Your task to perform on an android device: Open ESPN.com Image 0: 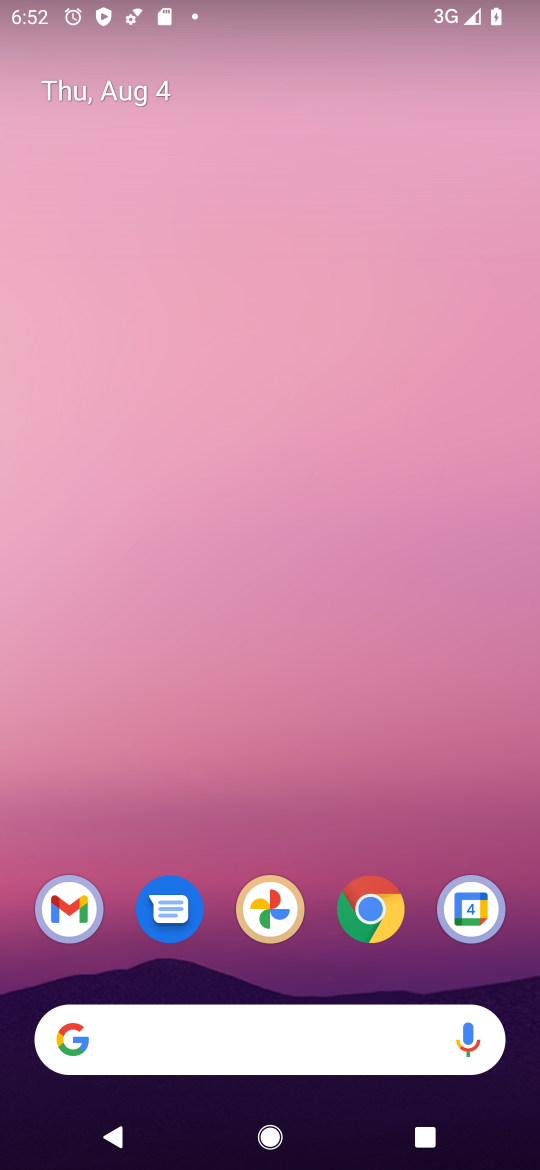
Step 0: drag from (47, 620) to (1, 220)
Your task to perform on an android device: Open ESPN.com Image 1: 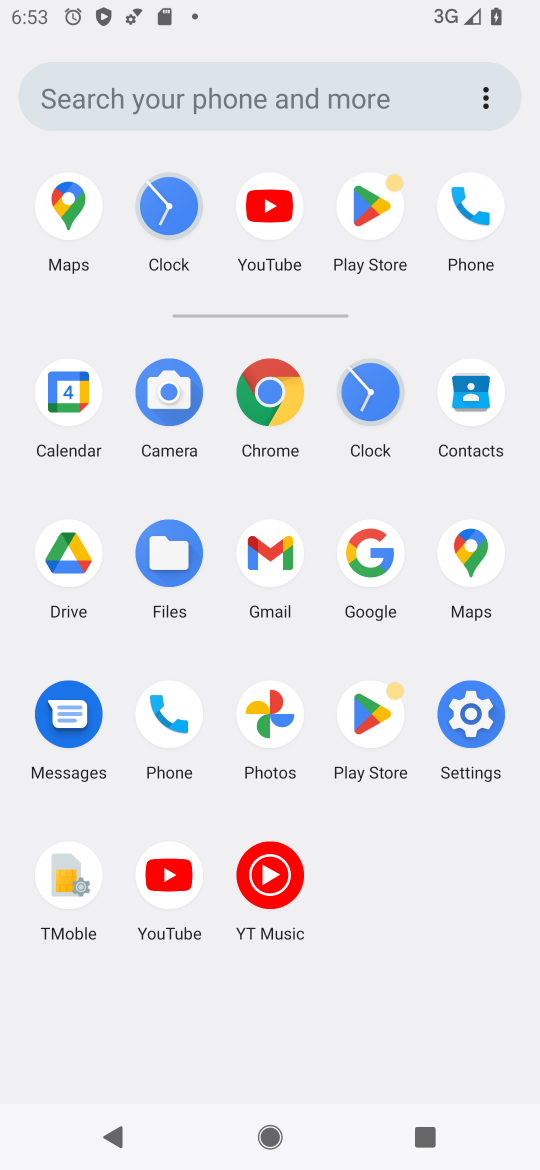
Step 1: click (284, 384)
Your task to perform on an android device: Open ESPN.com Image 2: 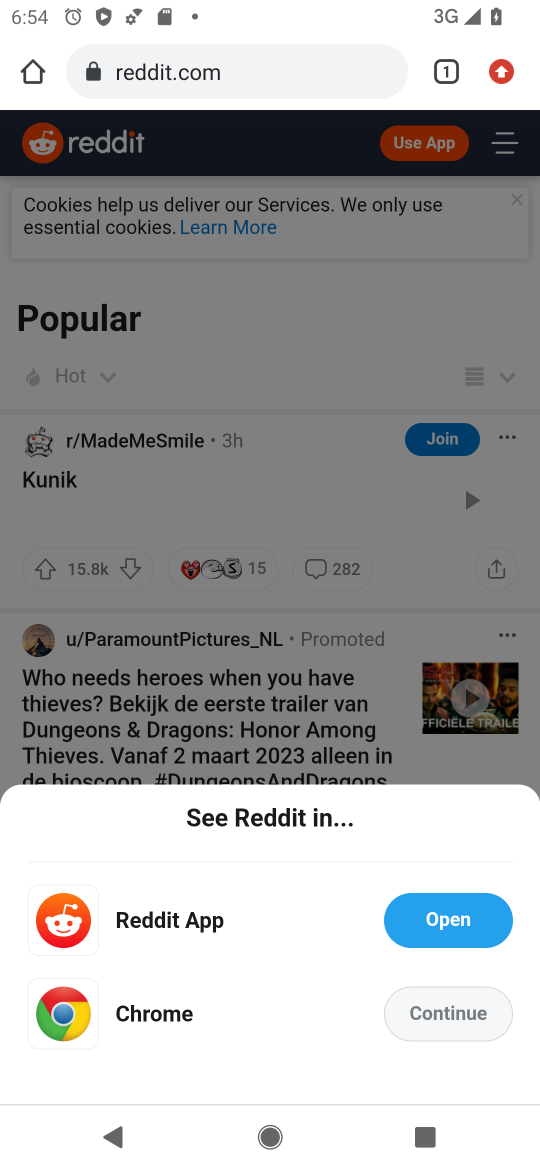
Step 2: click (248, 75)
Your task to perform on an android device: Open ESPN.com Image 3: 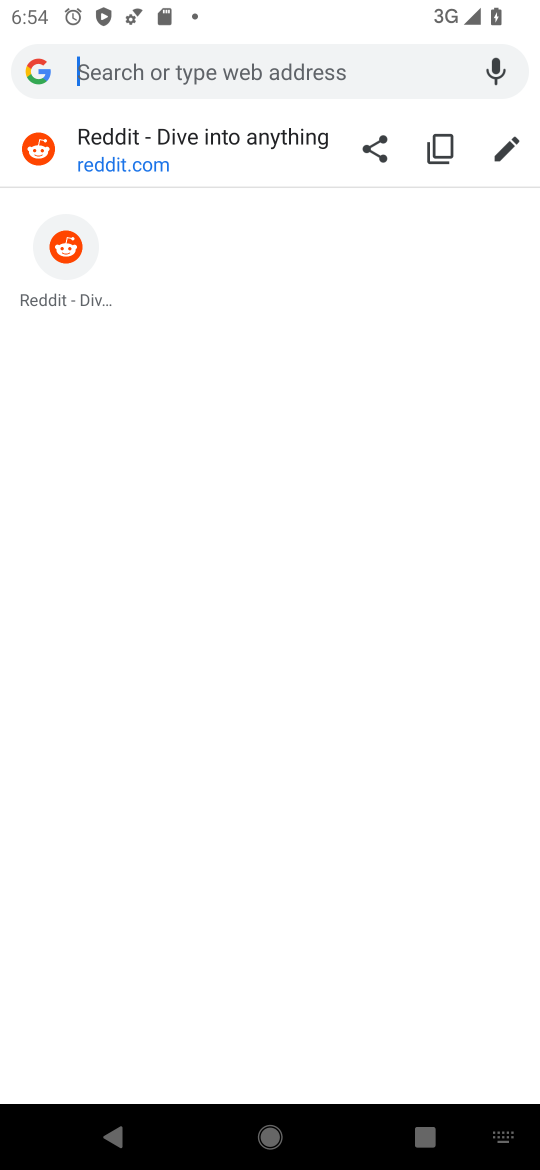
Step 3: type " ESPN.com"
Your task to perform on an android device: Open ESPN.com Image 4: 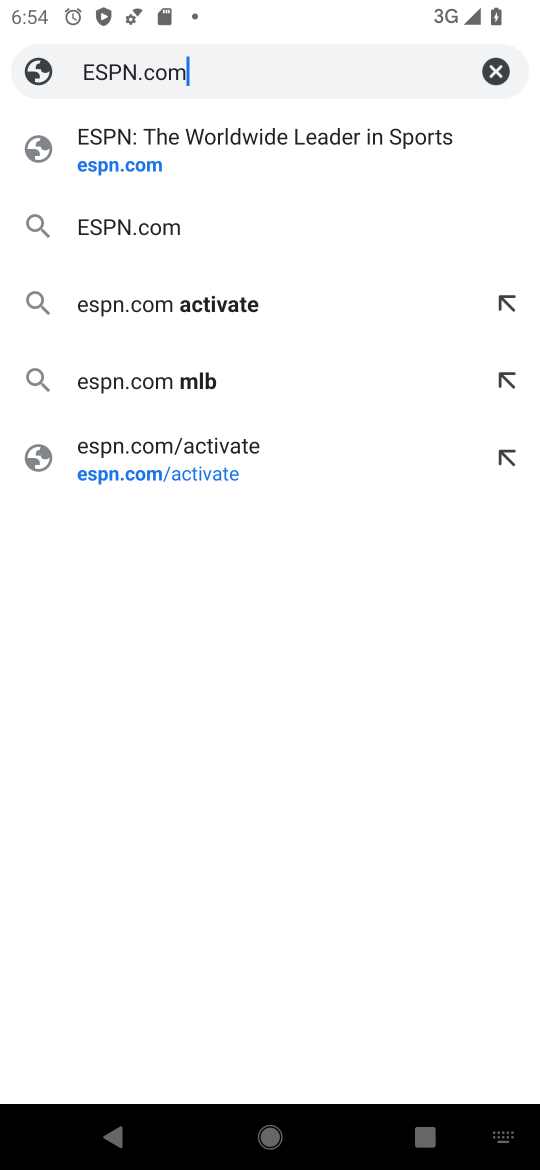
Step 4: click (149, 139)
Your task to perform on an android device: Open ESPN.com Image 5: 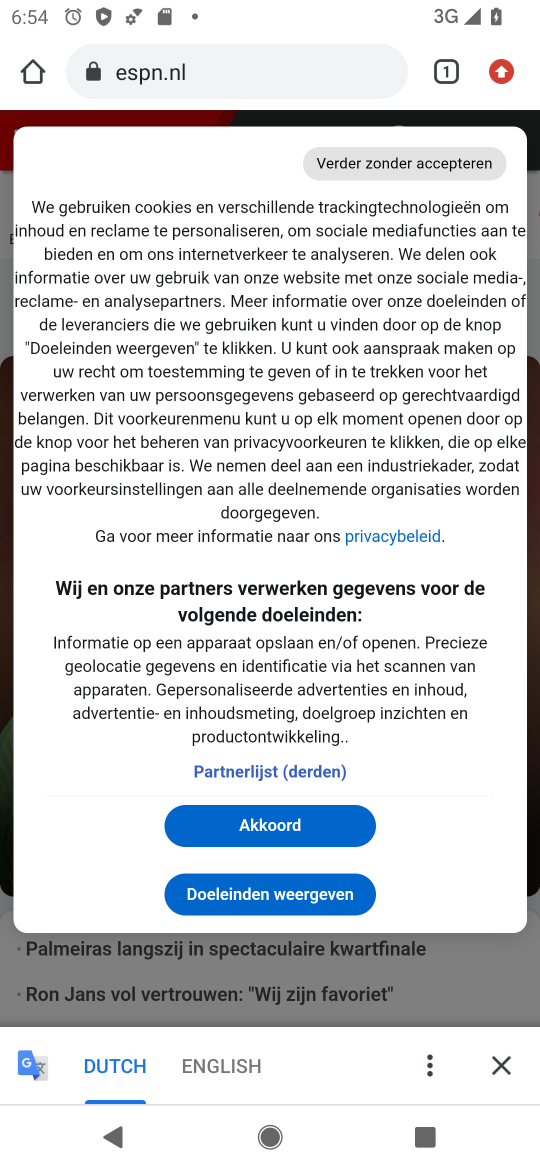
Step 5: task complete